Your task to perform on an android device: visit the assistant section in the google photos Image 0: 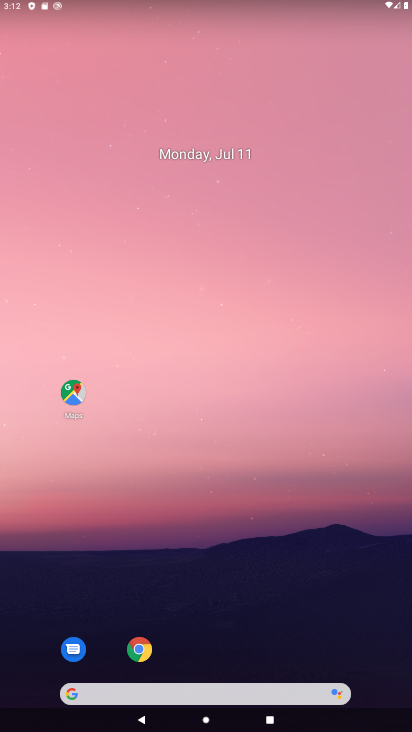
Step 0: drag from (305, 655) to (240, 4)
Your task to perform on an android device: visit the assistant section in the google photos Image 1: 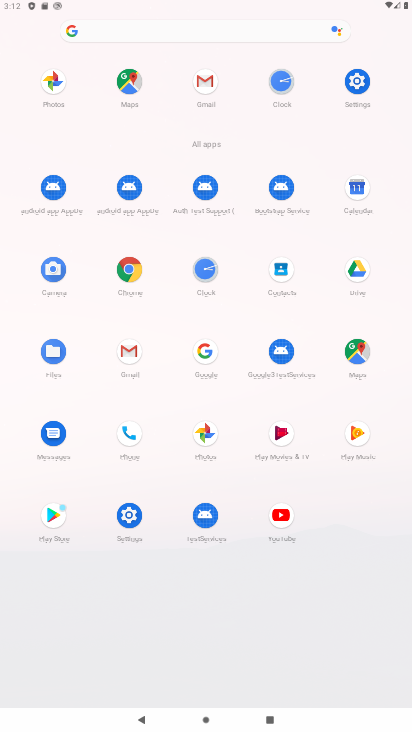
Step 1: click (196, 433)
Your task to perform on an android device: visit the assistant section in the google photos Image 2: 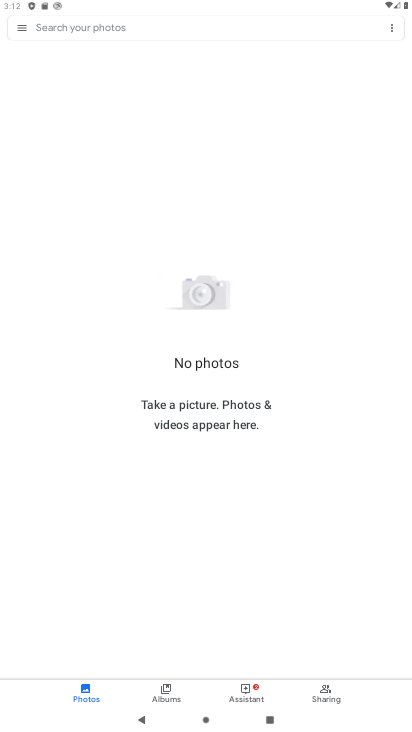
Step 2: click (236, 690)
Your task to perform on an android device: visit the assistant section in the google photos Image 3: 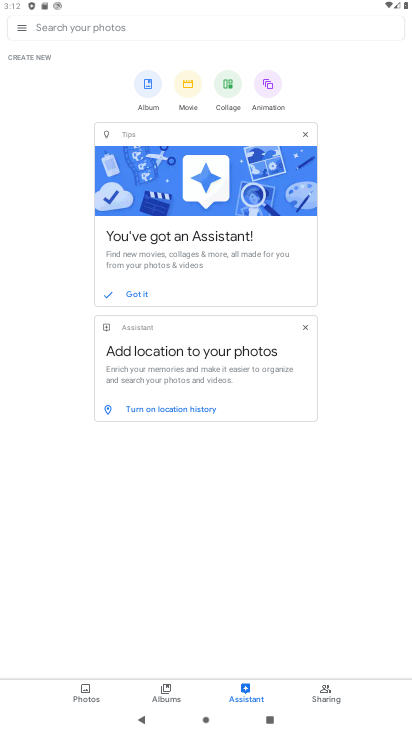
Step 3: task complete